Your task to perform on an android device: turn off translation in the chrome app Image 0: 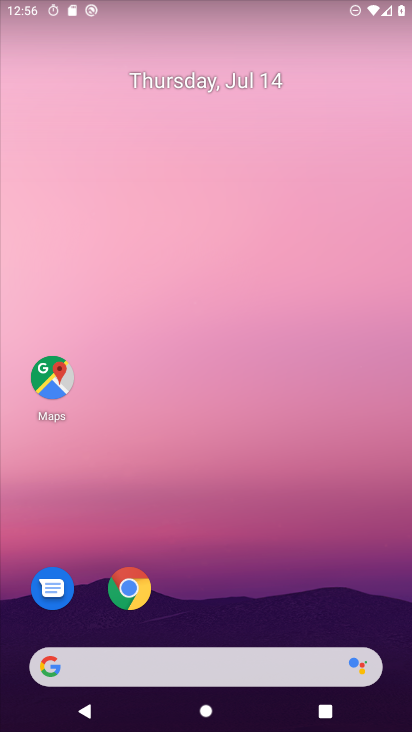
Step 0: press home button
Your task to perform on an android device: turn off translation in the chrome app Image 1: 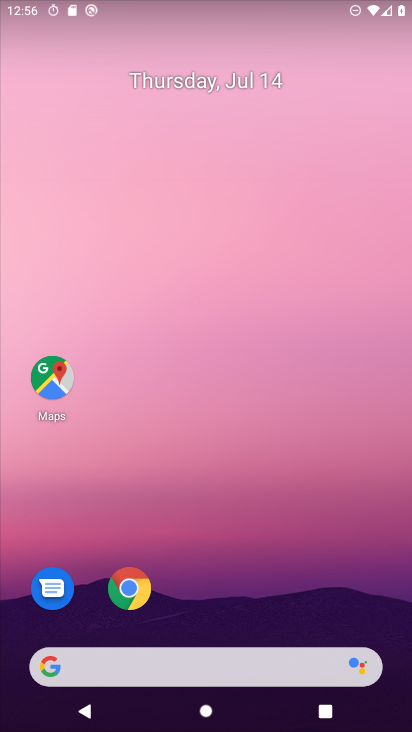
Step 1: click (127, 574)
Your task to perform on an android device: turn off translation in the chrome app Image 2: 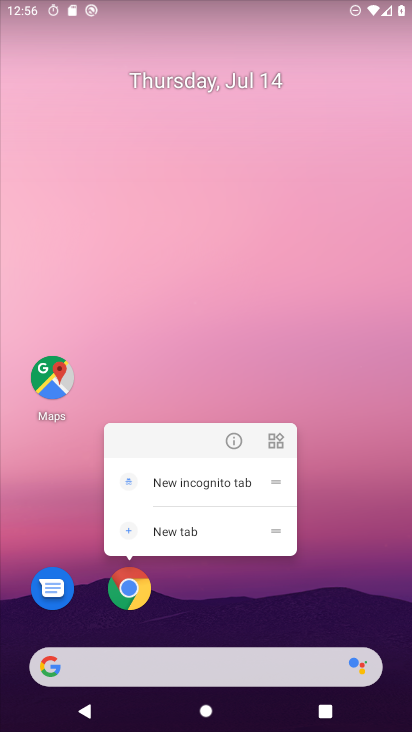
Step 2: click (121, 588)
Your task to perform on an android device: turn off translation in the chrome app Image 3: 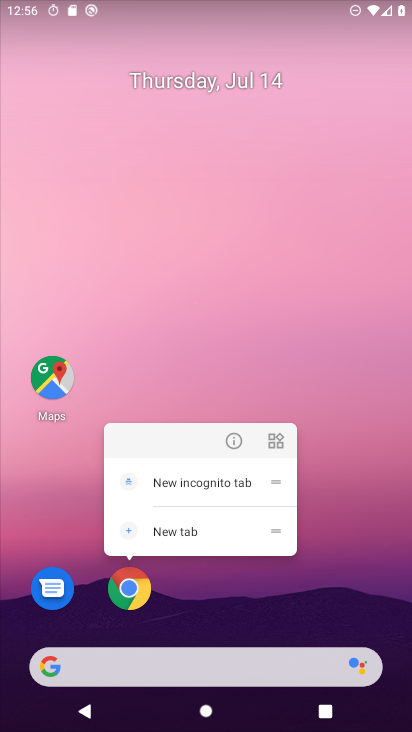
Step 3: click (134, 600)
Your task to perform on an android device: turn off translation in the chrome app Image 4: 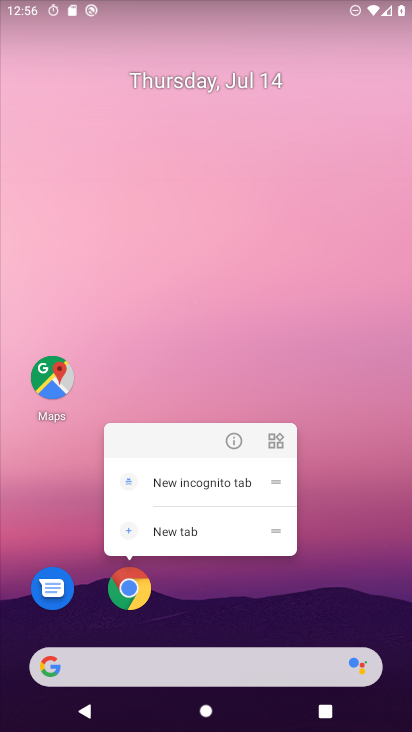
Step 4: click (134, 600)
Your task to perform on an android device: turn off translation in the chrome app Image 5: 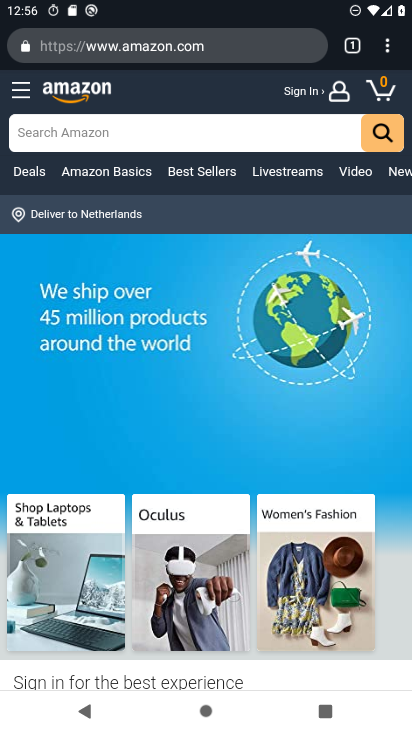
Step 5: drag from (387, 51) to (294, 597)
Your task to perform on an android device: turn off translation in the chrome app Image 6: 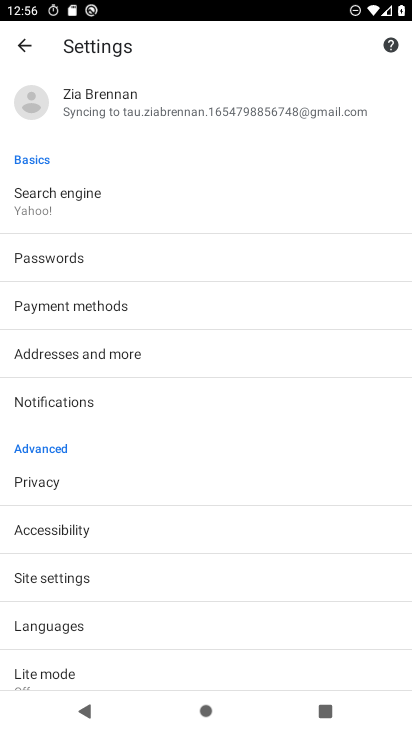
Step 6: click (92, 631)
Your task to perform on an android device: turn off translation in the chrome app Image 7: 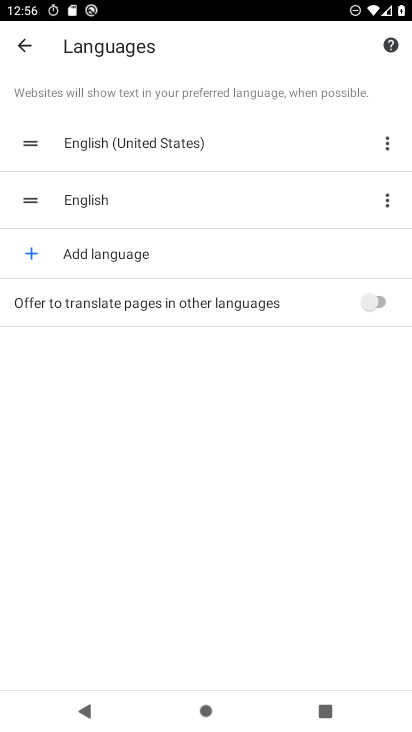
Step 7: task complete